Your task to perform on an android device: check the backup settings in the google photos Image 0: 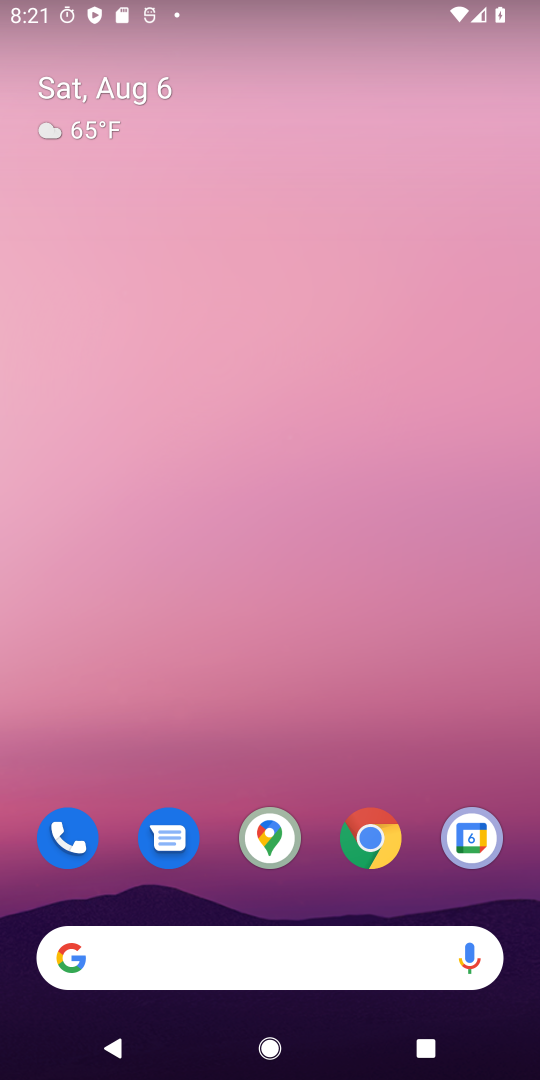
Step 0: click (241, 249)
Your task to perform on an android device: check the backup settings in the google photos Image 1: 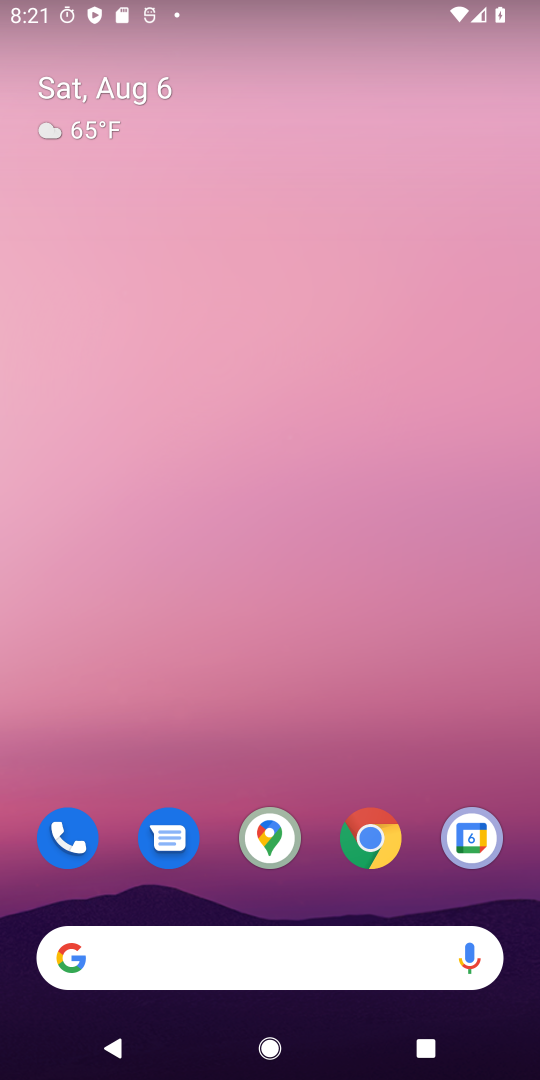
Step 1: drag from (268, 148) to (328, 1)
Your task to perform on an android device: check the backup settings in the google photos Image 2: 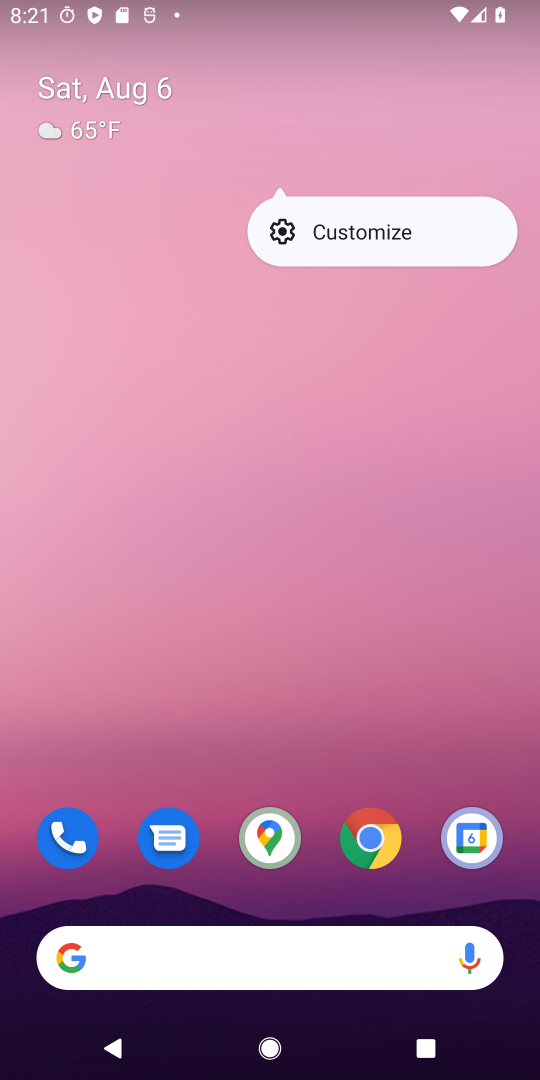
Step 2: drag from (235, 765) to (360, 11)
Your task to perform on an android device: check the backup settings in the google photos Image 3: 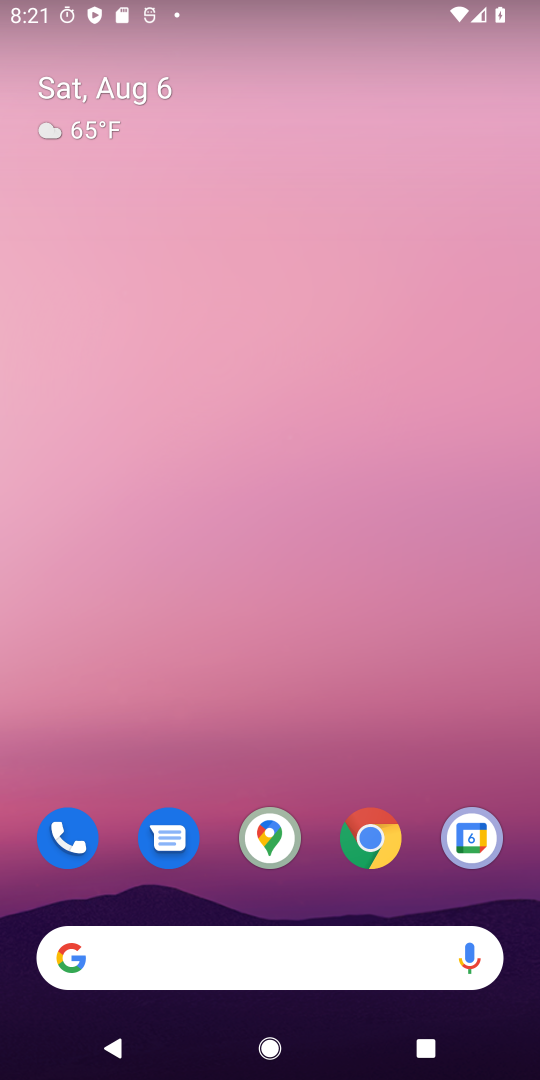
Step 3: drag from (218, 690) to (340, 109)
Your task to perform on an android device: check the backup settings in the google photos Image 4: 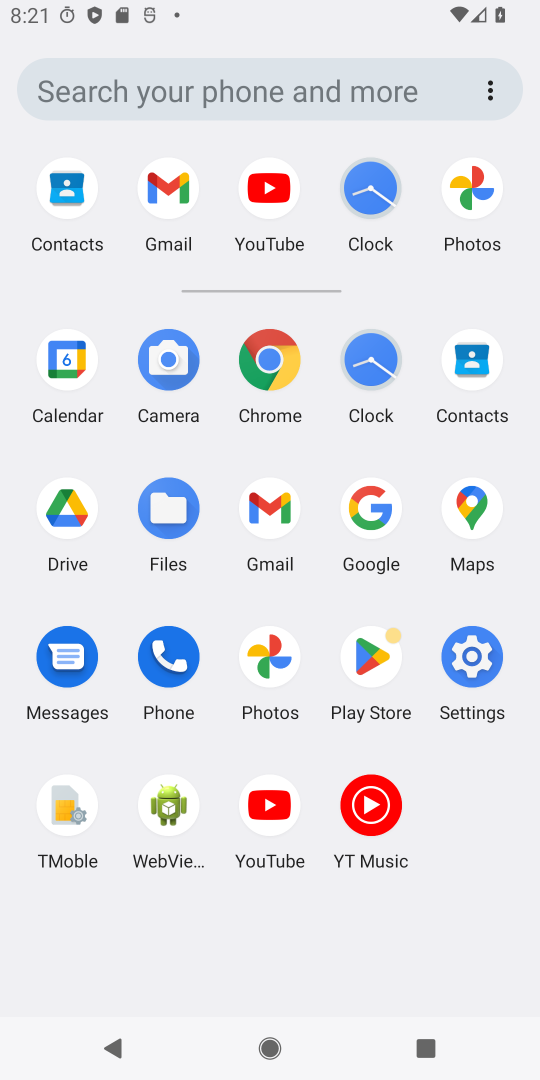
Step 4: click (264, 662)
Your task to perform on an android device: check the backup settings in the google photos Image 5: 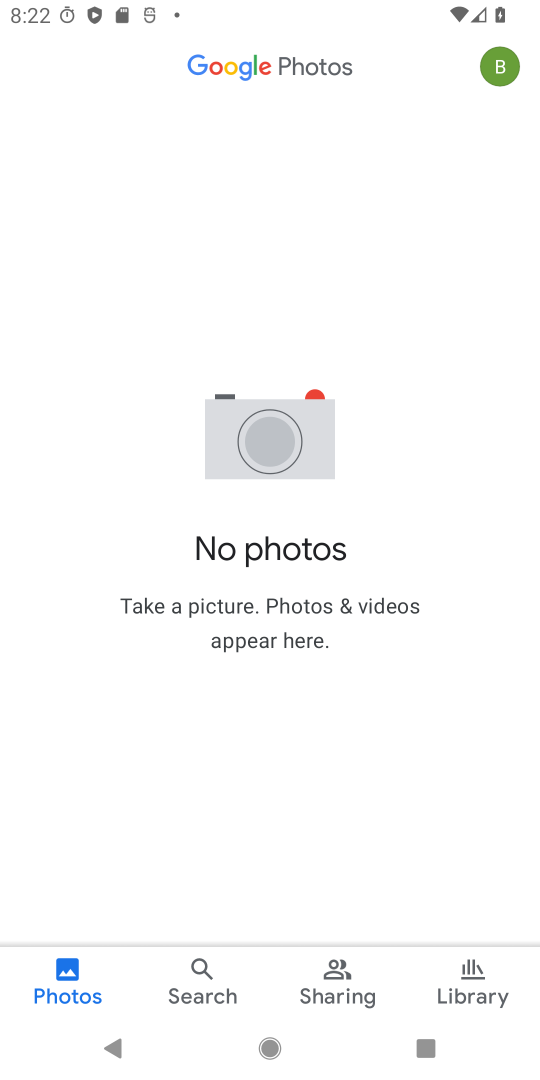
Step 5: click (491, 51)
Your task to perform on an android device: check the backup settings in the google photos Image 6: 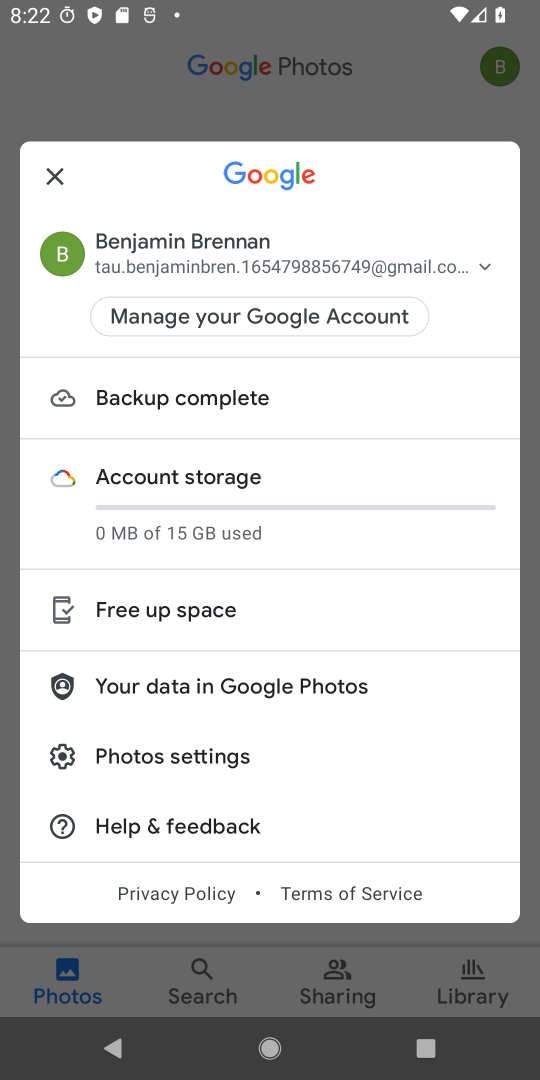
Step 6: click (134, 758)
Your task to perform on an android device: check the backup settings in the google photos Image 7: 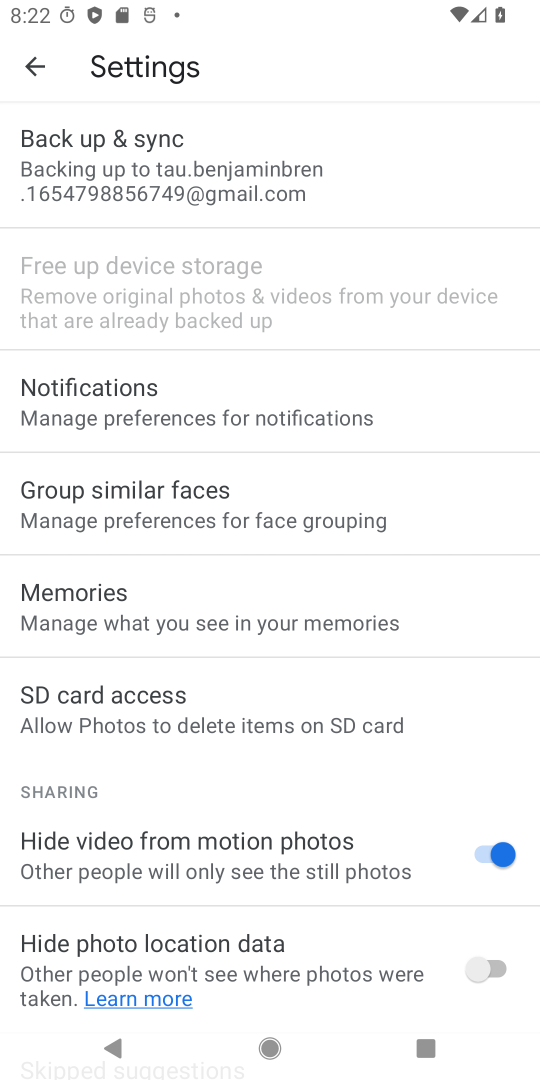
Step 7: click (373, 179)
Your task to perform on an android device: check the backup settings in the google photos Image 8: 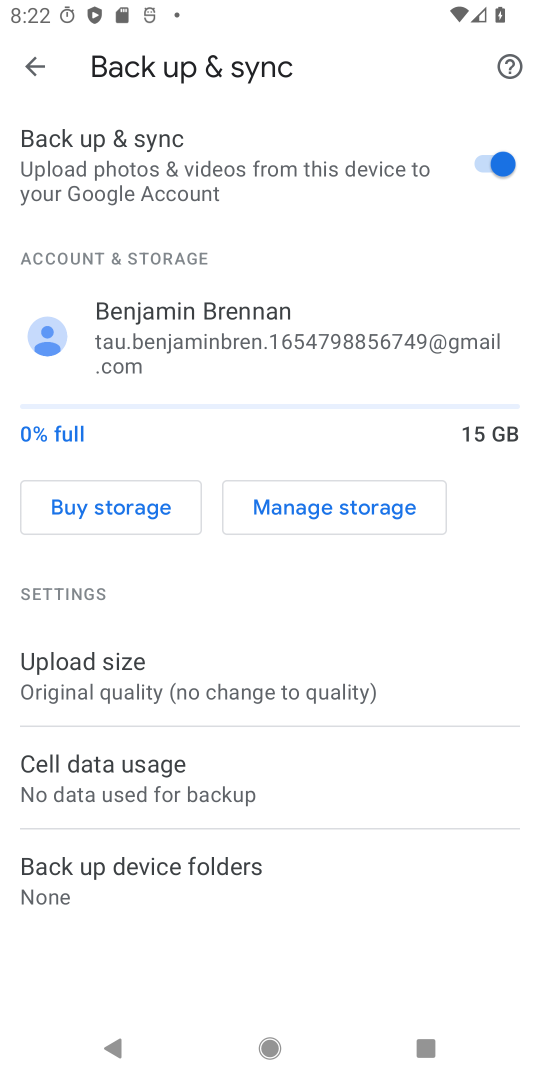
Step 8: task complete